Your task to perform on an android device: check out phone information Image 0: 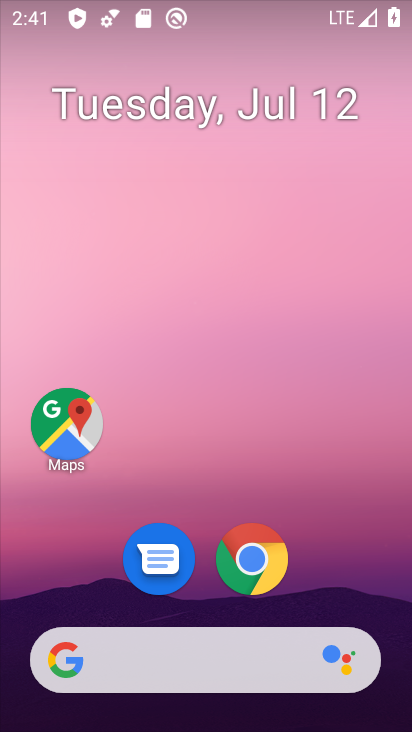
Step 0: drag from (376, 560) to (378, 131)
Your task to perform on an android device: check out phone information Image 1: 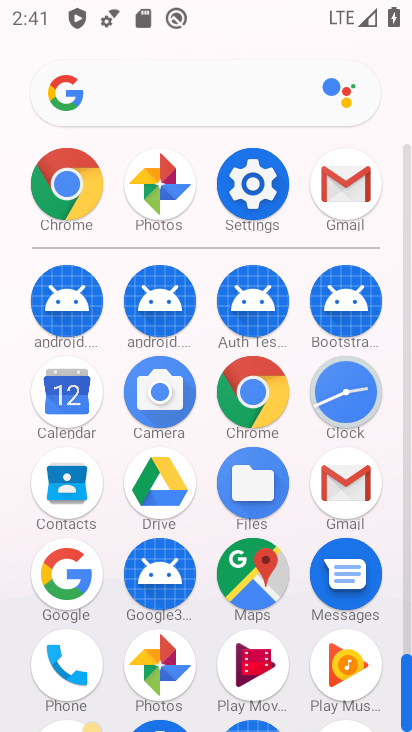
Step 1: click (80, 666)
Your task to perform on an android device: check out phone information Image 2: 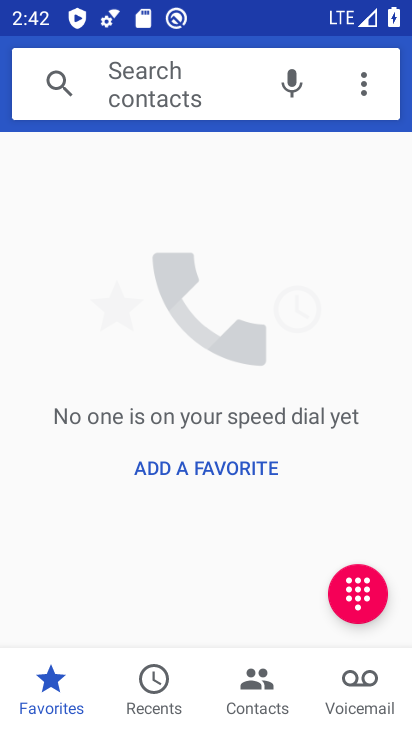
Step 2: task complete